Your task to perform on an android device: Go to Yahoo.com Image 0: 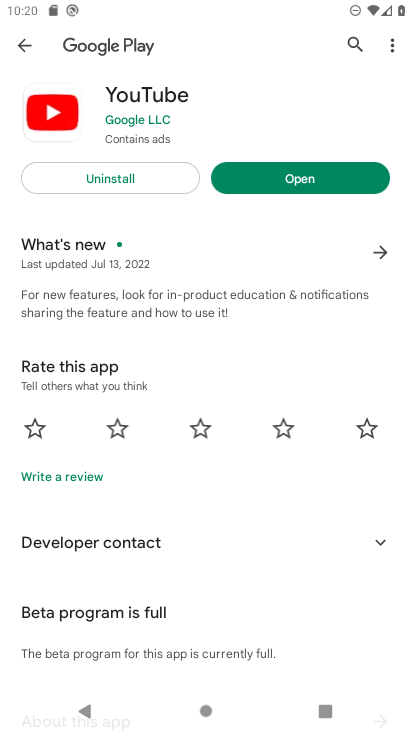
Step 0: press home button
Your task to perform on an android device: Go to Yahoo.com Image 1: 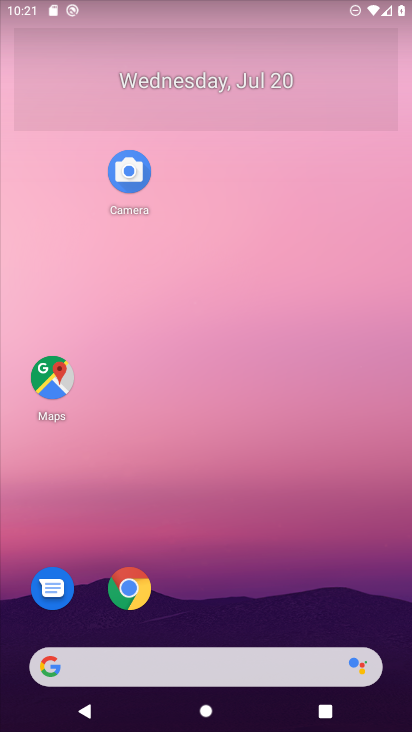
Step 1: click (55, 675)
Your task to perform on an android device: Go to Yahoo.com Image 2: 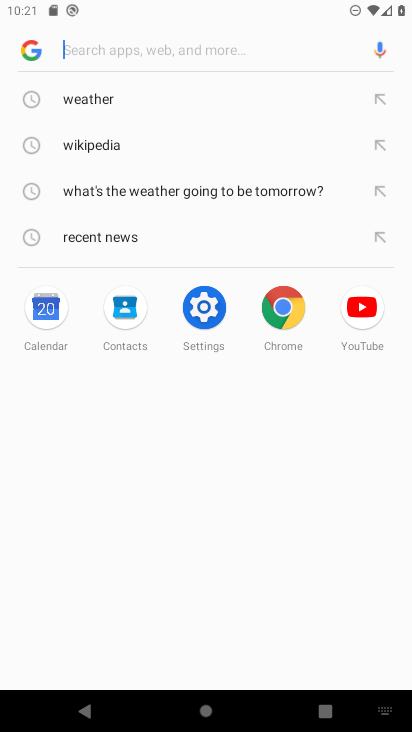
Step 2: type "Yahoo.com"
Your task to perform on an android device: Go to Yahoo.com Image 3: 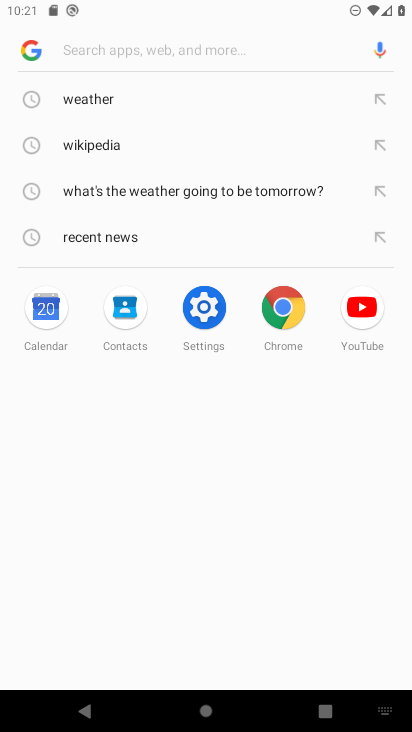
Step 3: click (104, 43)
Your task to perform on an android device: Go to Yahoo.com Image 4: 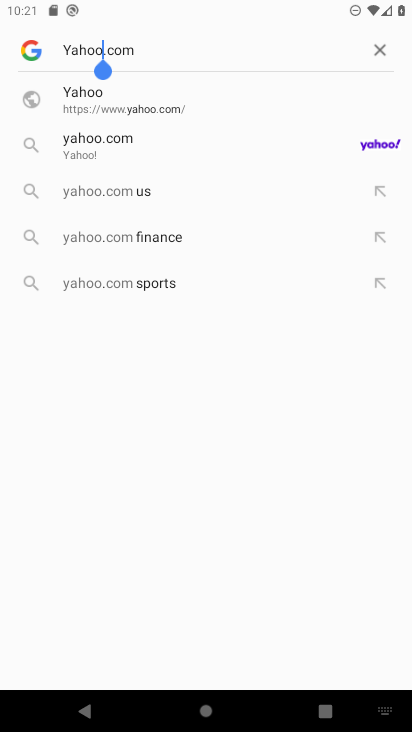
Step 4: press enter
Your task to perform on an android device: Go to Yahoo.com Image 5: 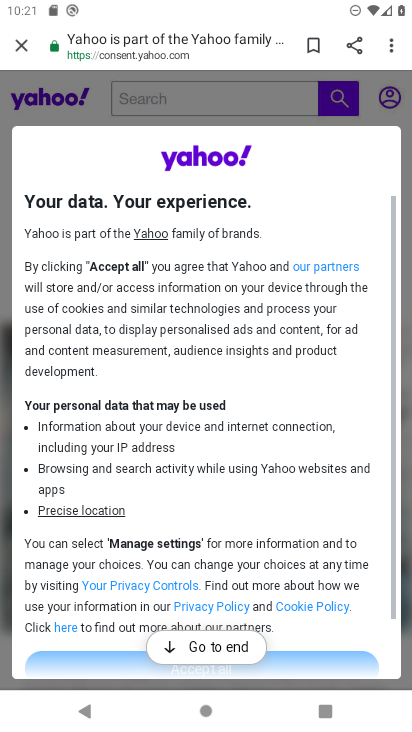
Step 5: click (237, 648)
Your task to perform on an android device: Go to Yahoo.com Image 6: 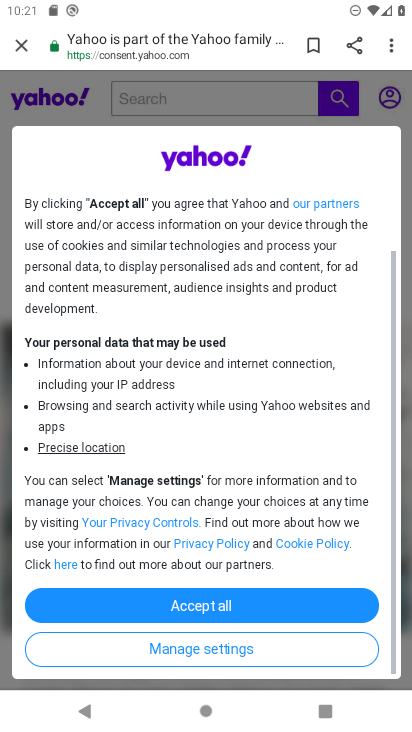
Step 6: click (217, 601)
Your task to perform on an android device: Go to Yahoo.com Image 7: 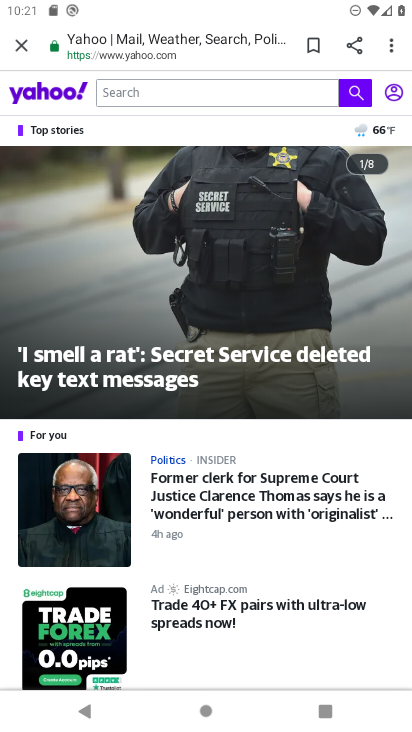
Step 7: task complete